Your task to perform on an android device: Clear the cart on ebay. Search for "corsair k70" on ebay, select the first entry, add it to the cart, then select checkout. Image 0: 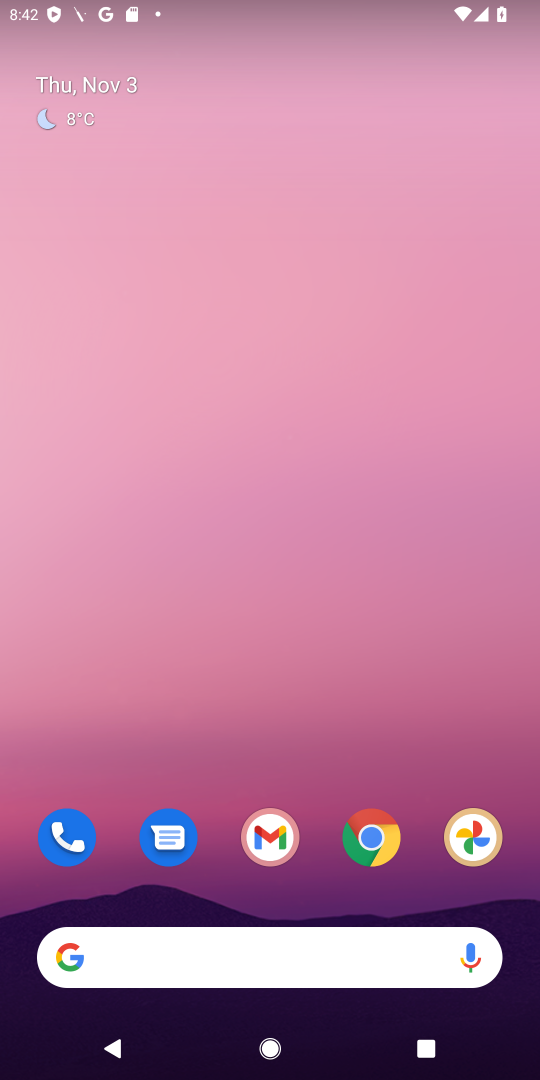
Step 0: click (367, 834)
Your task to perform on an android device: Clear the cart on ebay. Search for "corsair k70" on ebay, select the first entry, add it to the cart, then select checkout. Image 1: 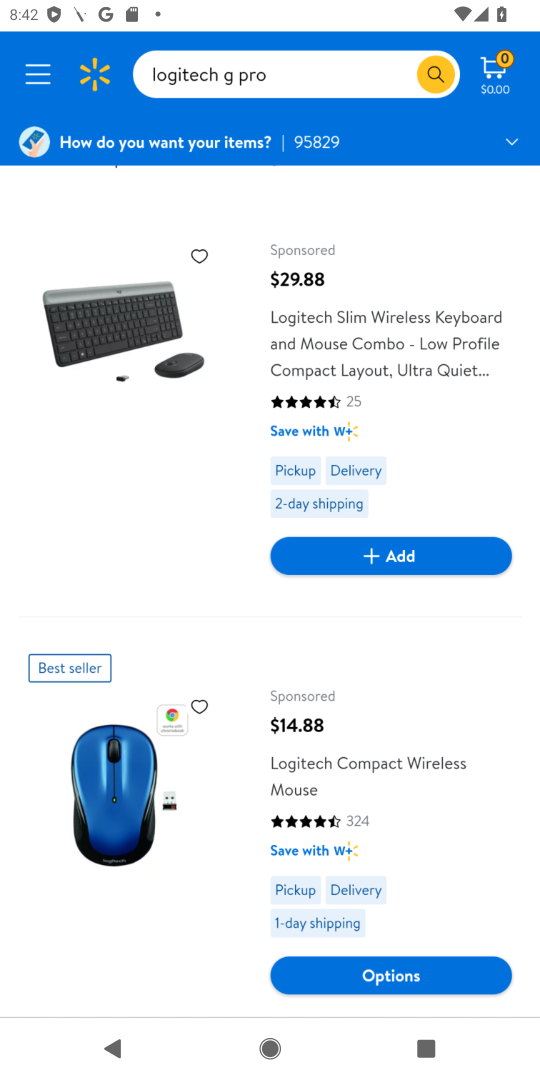
Step 1: click (367, 835)
Your task to perform on an android device: Clear the cart on ebay. Search for "corsair k70" on ebay, select the first entry, add it to the cart, then select checkout. Image 2: 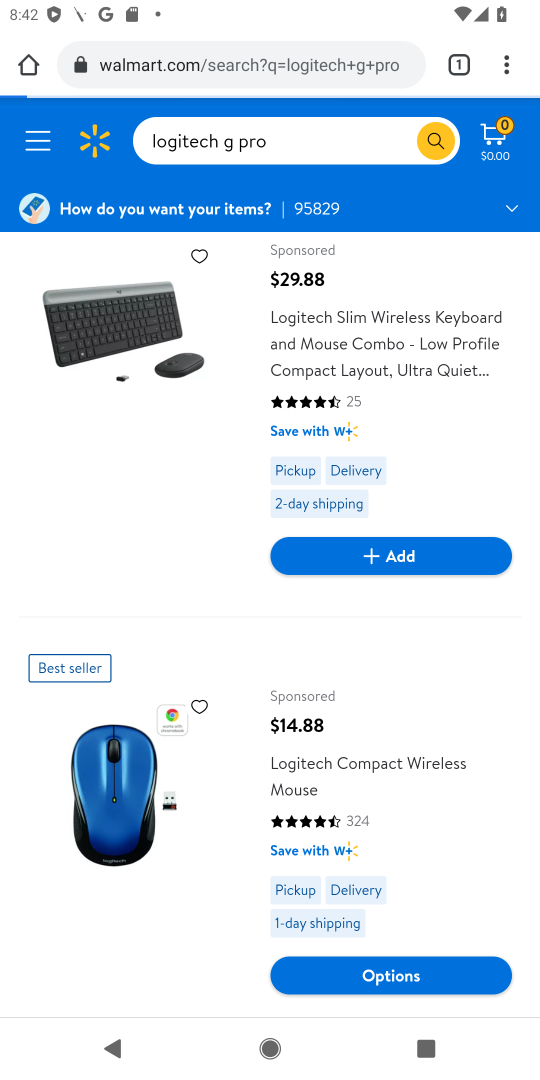
Step 2: click (271, 68)
Your task to perform on an android device: Clear the cart on ebay. Search for "corsair k70" on ebay, select the first entry, add it to the cart, then select checkout. Image 3: 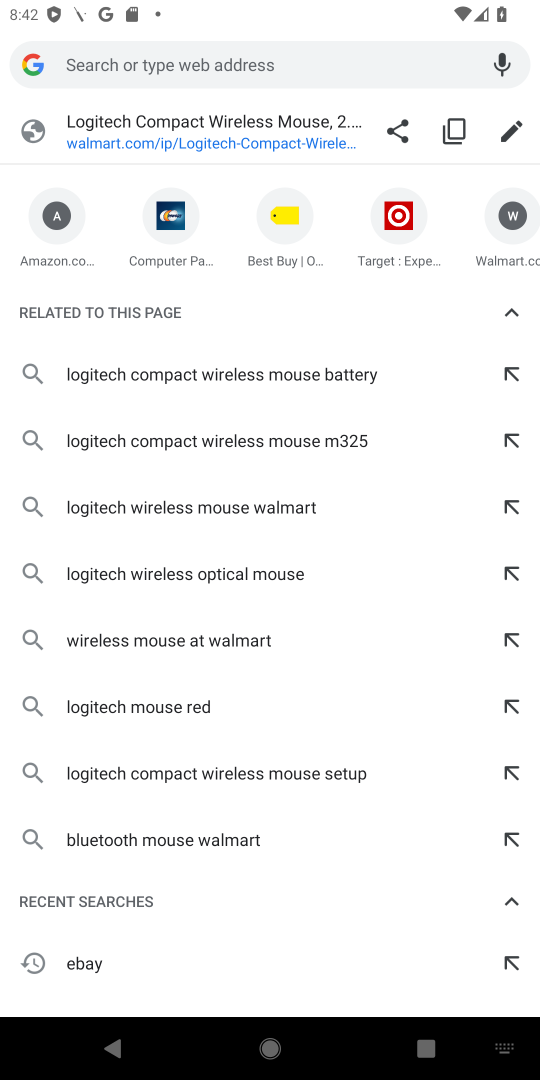
Step 3: click (83, 965)
Your task to perform on an android device: Clear the cart on ebay. Search for "corsair k70" on ebay, select the first entry, add it to the cart, then select checkout. Image 4: 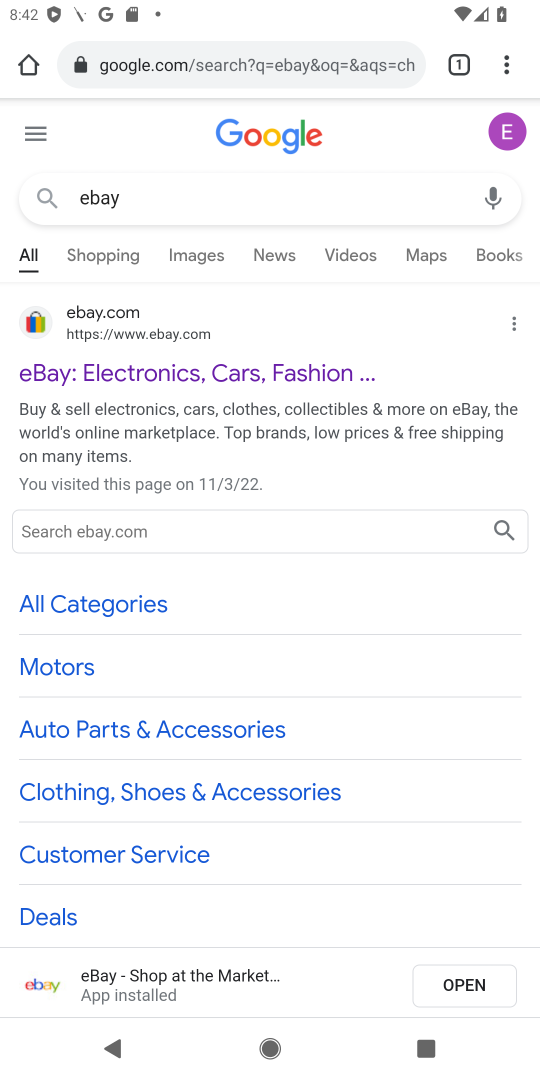
Step 4: click (270, 381)
Your task to perform on an android device: Clear the cart on ebay. Search for "corsair k70" on ebay, select the first entry, add it to the cart, then select checkout. Image 5: 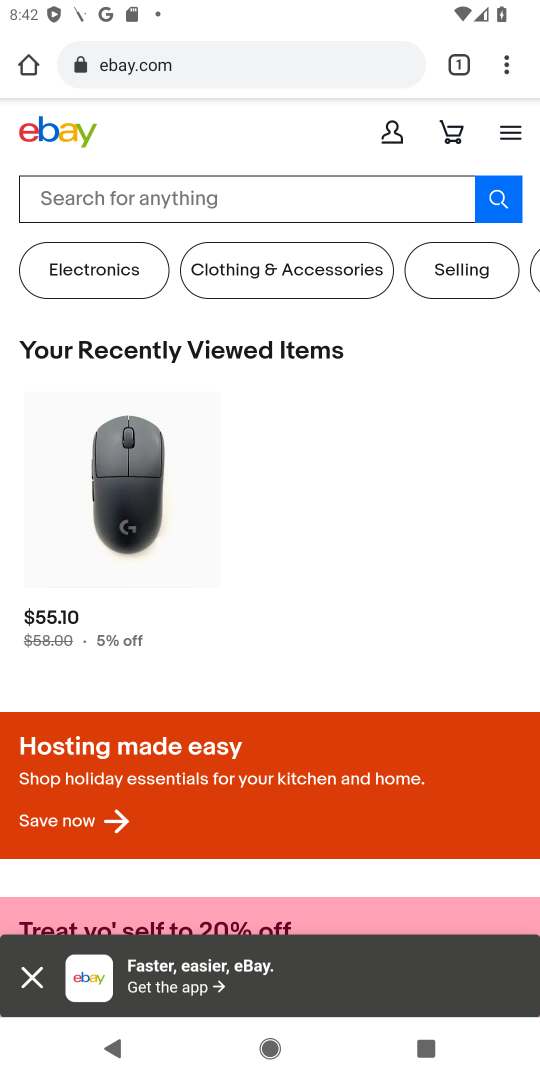
Step 5: click (177, 193)
Your task to perform on an android device: Clear the cart on ebay. Search for "corsair k70" on ebay, select the first entry, add it to the cart, then select checkout. Image 6: 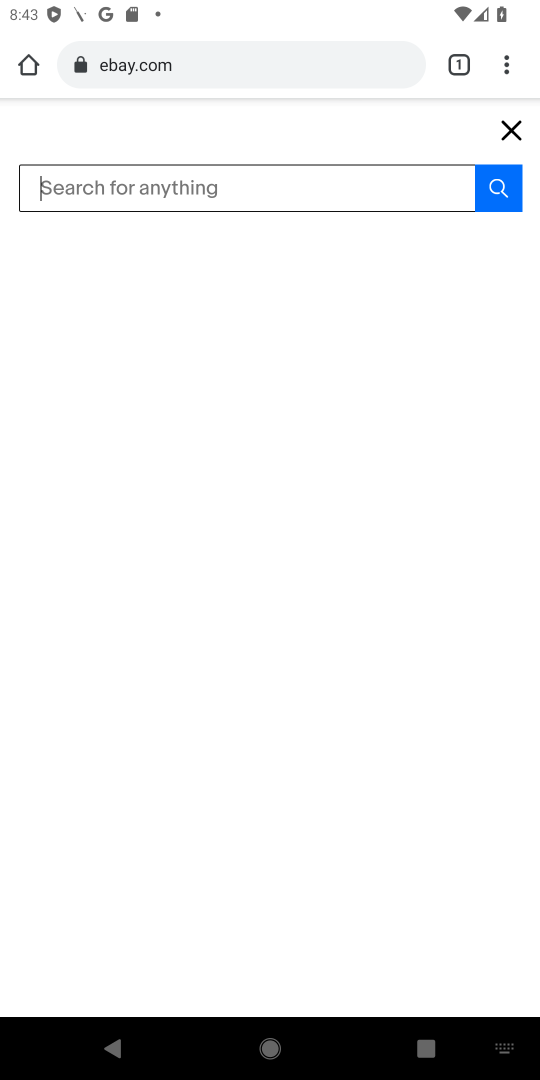
Step 6: type "corsair k70"
Your task to perform on an android device: Clear the cart on ebay. Search for "corsair k70" on ebay, select the first entry, add it to the cart, then select checkout. Image 7: 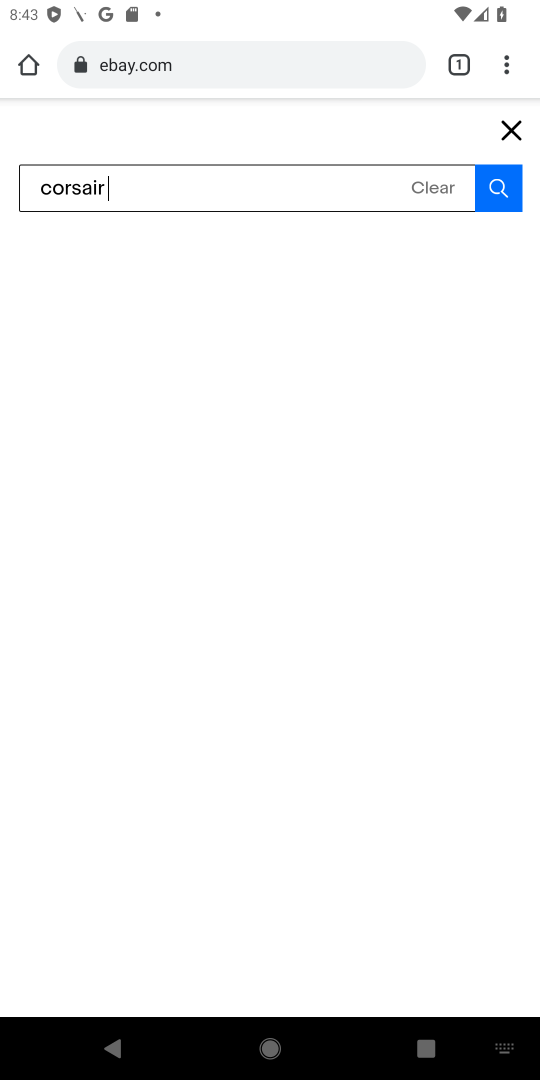
Step 7: press enter
Your task to perform on an android device: Clear the cart on ebay. Search for "corsair k70" on ebay, select the first entry, add it to the cart, then select checkout. Image 8: 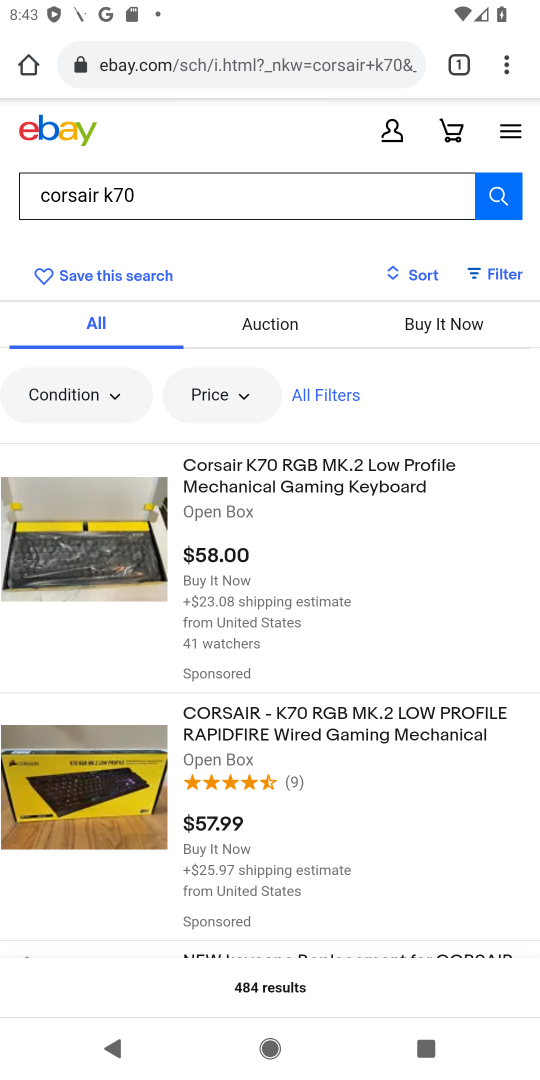
Step 8: click (256, 513)
Your task to perform on an android device: Clear the cart on ebay. Search for "corsair k70" on ebay, select the first entry, add it to the cart, then select checkout. Image 9: 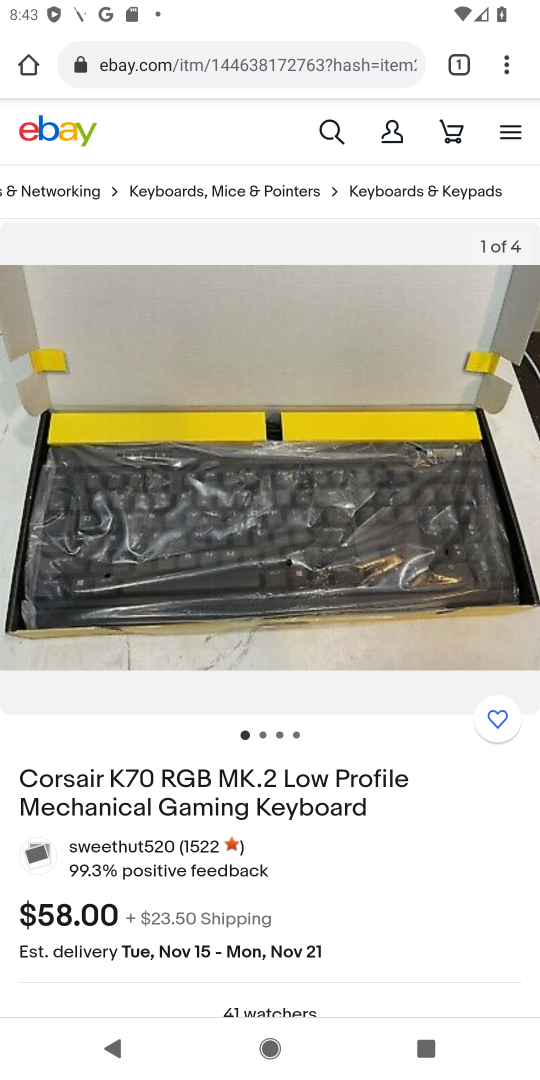
Step 9: drag from (316, 857) to (416, 354)
Your task to perform on an android device: Clear the cart on ebay. Search for "corsair k70" on ebay, select the first entry, add it to the cart, then select checkout. Image 10: 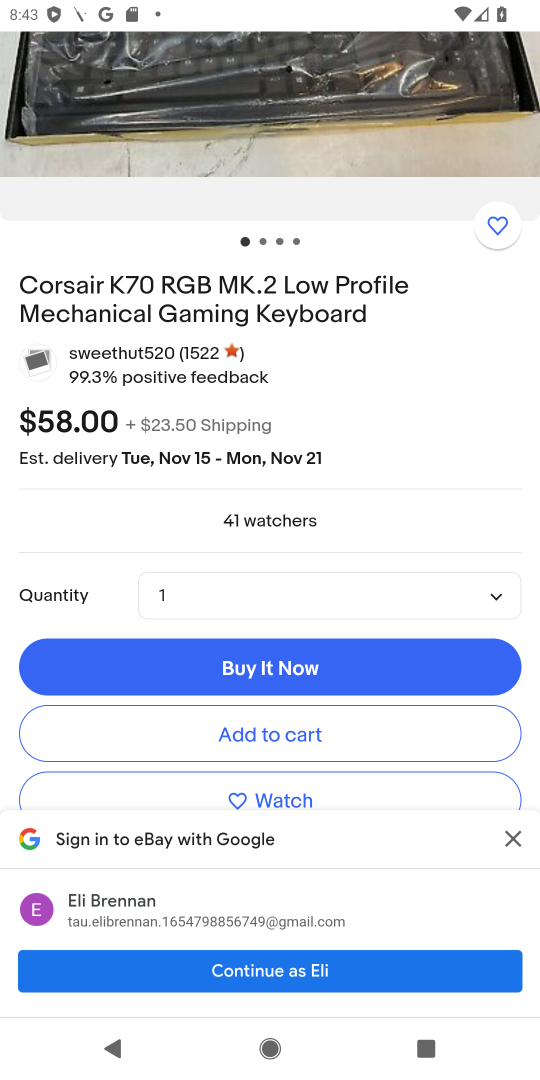
Step 10: click (304, 744)
Your task to perform on an android device: Clear the cart on ebay. Search for "corsair k70" on ebay, select the first entry, add it to the cart, then select checkout. Image 11: 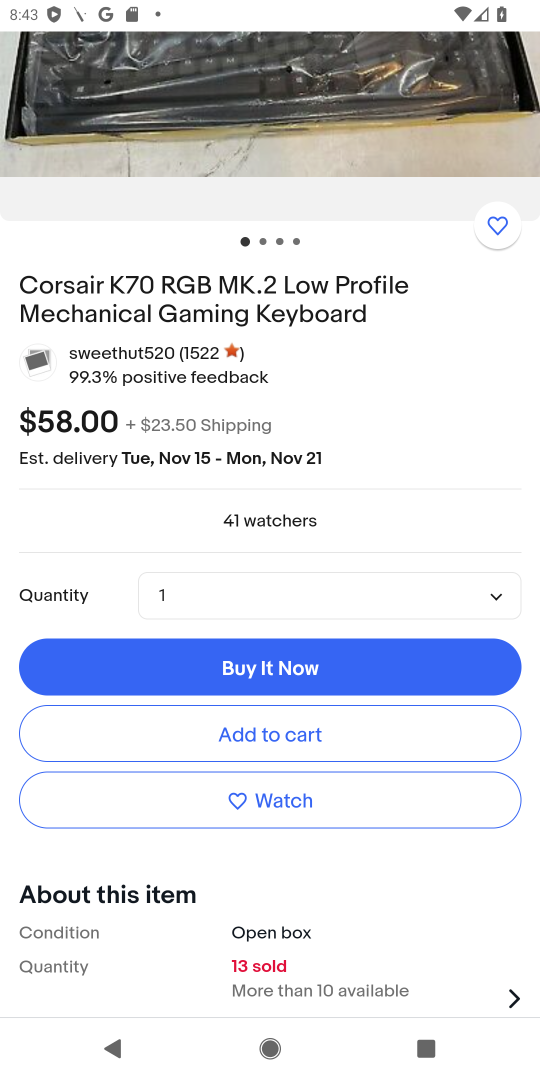
Step 11: click (290, 729)
Your task to perform on an android device: Clear the cart on ebay. Search for "corsair k70" on ebay, select the first entry, add it to the cart, then select checkout. Image 12: 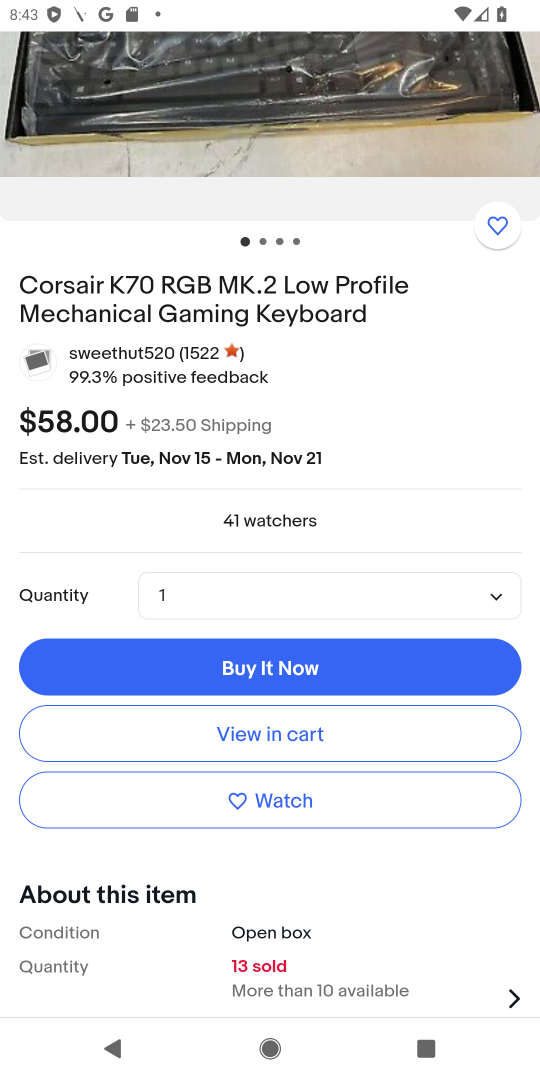
Step 12: click (290, 728)
Your task to perform on an android device: Clear the cart on ebay. Search for "corsair k70" on ebay, select the first entry, add it to the cart, then select checkout. Image 13: 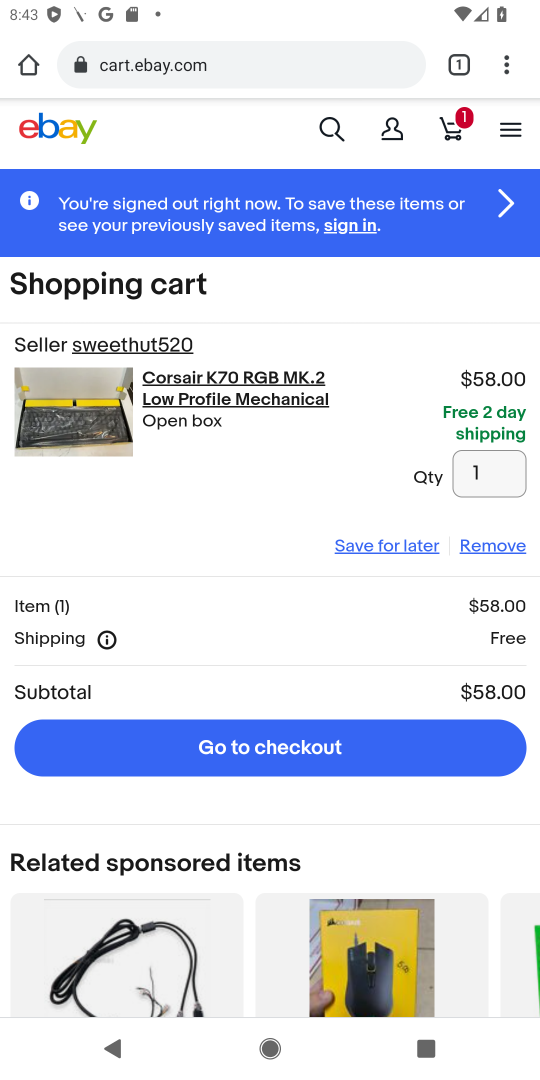
Step 13: click (283, 747)
Your task to perform on an android device: Clear the cart on ebay. Search for "corsair k70" on ebay, select the first entry, add it to the cart, then select checkout. Image 14: 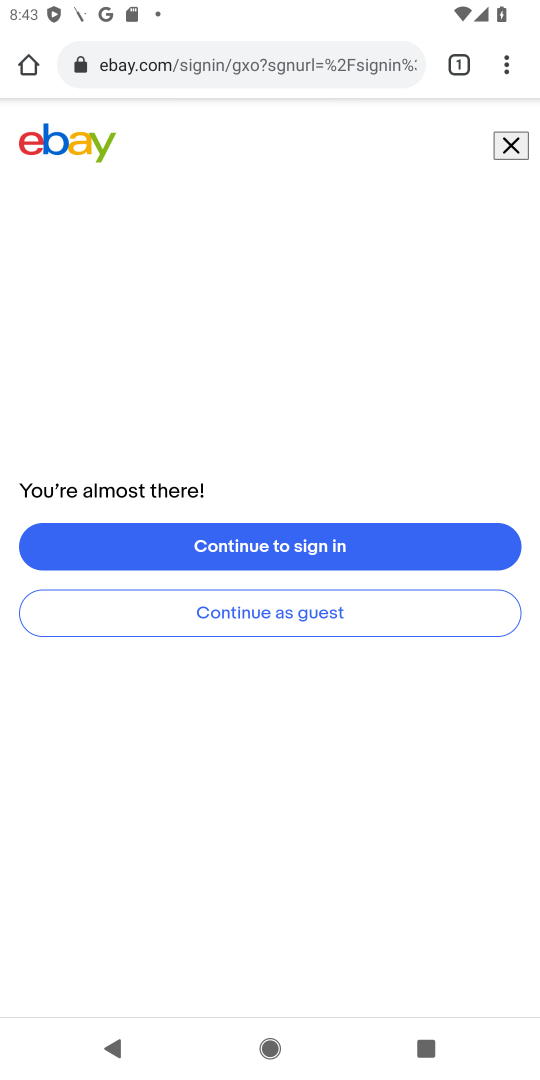
Step 14: task complete